Your task to perform on an android device: turn off notifications in google photos Image 0: 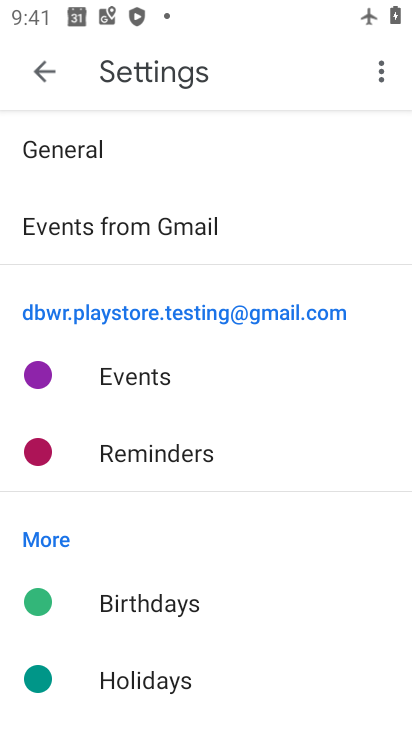
Step 0: press home button
Your task to perform on an android device: turn off notifications in google photos Image 1: 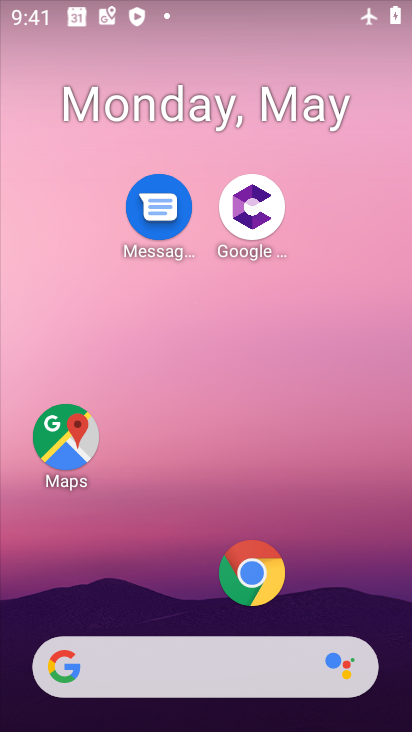
Step 1: drag from (163, 628) to (263, 174)
Your task to perform on an android device: turn off notifications in google photos Image 2: 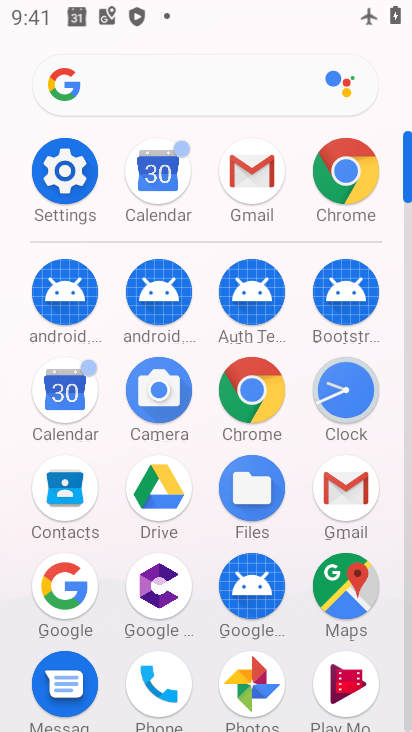
Step 2: drag from (180, 491) to (197, 297)
Your task to perform on an android device: turn off notifications in google photos Image 3: 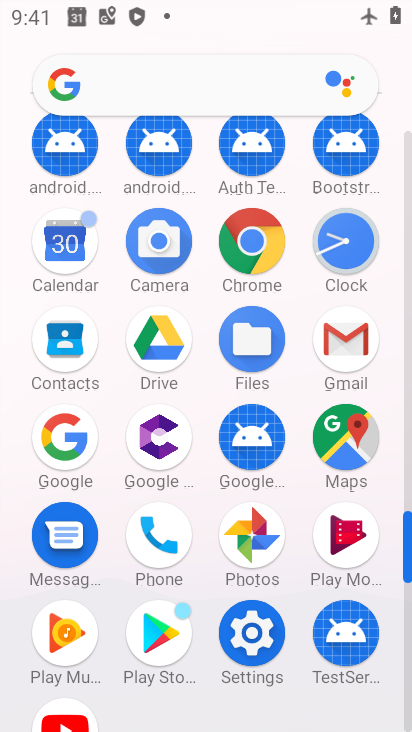
Step 3: click (258, 539)
Your task to perform on an android device: turn off notifications in google photos Image 4: 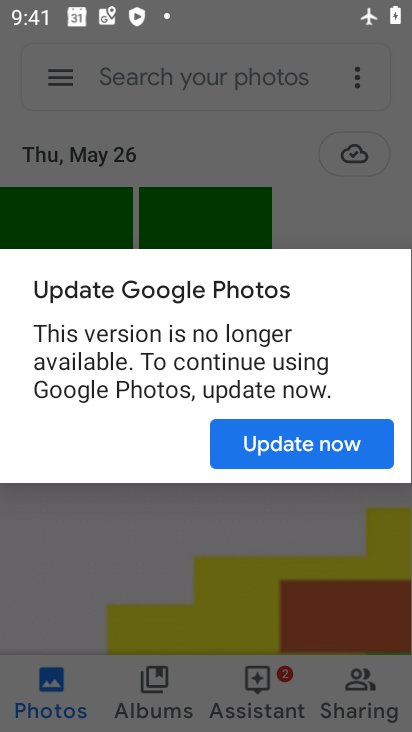
Step 4: task complete